Your task to perform on an android device: Do I have any events today? Image 0: 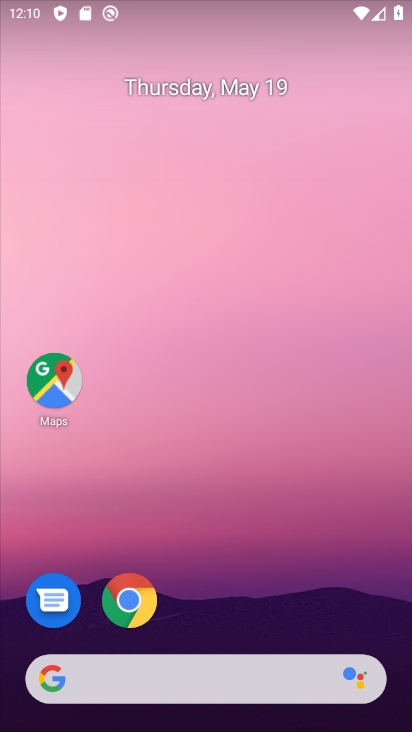
Step 0: drag from (277, 368) to (259, 29)
Your task to perform on an android device: Do I have any events today? Image 1: 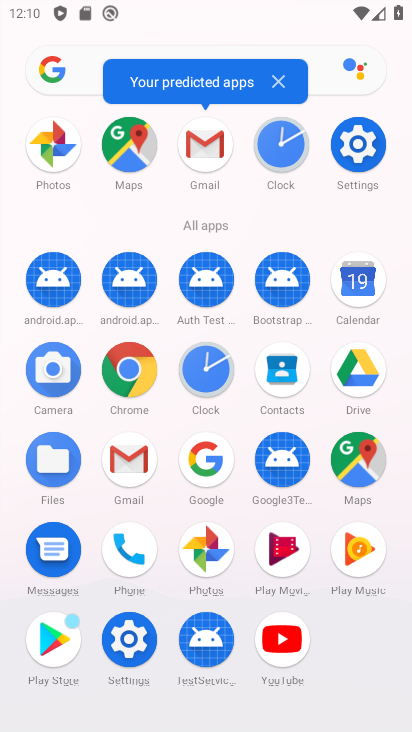
Step 1: drag from (274, 516) to (241, 0)
Your task to perform on an android device: Do I have any events today? Image 2: 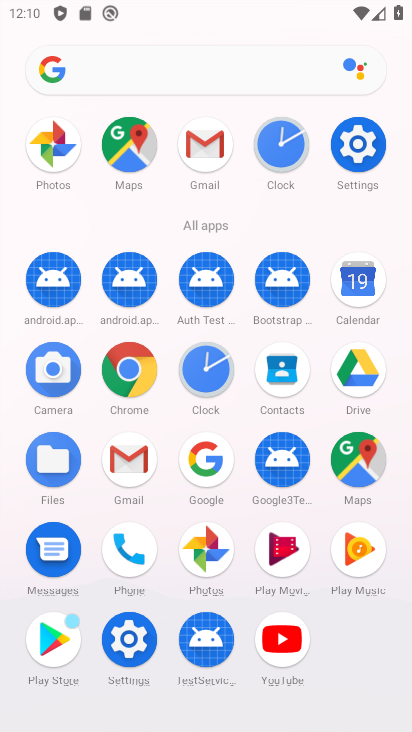
Step 2: click (354, 276)
Your task to perform on an android device: Do I have any events today? Image 3: 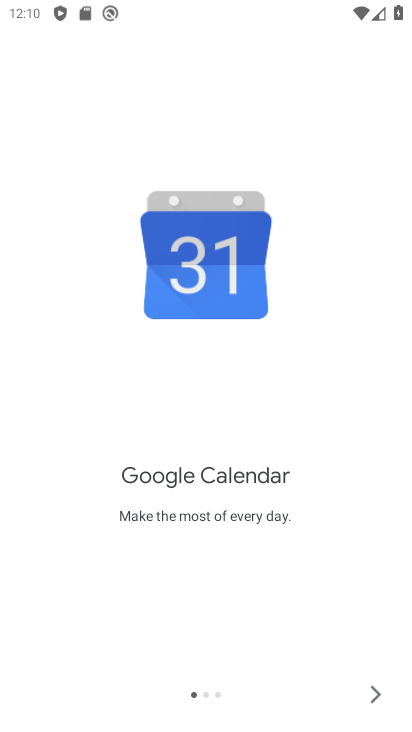
Step 3: click (379, 697)
Your task to perform on an android device: Do I have any events today? Image 4: 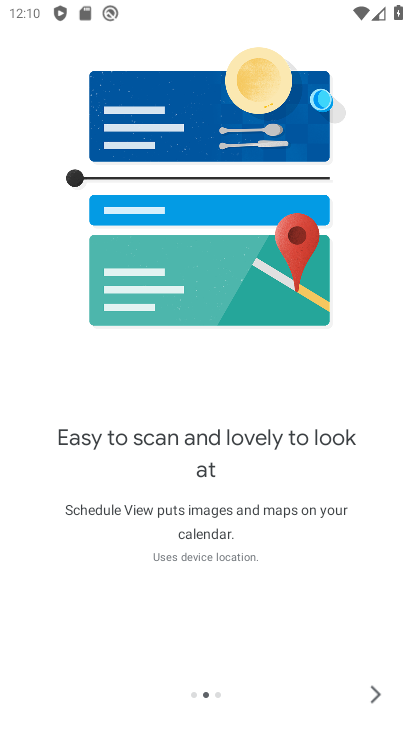
Step 4: click (379, 697)
Your task to perform on an android device: Do I have any events today? Image 5: 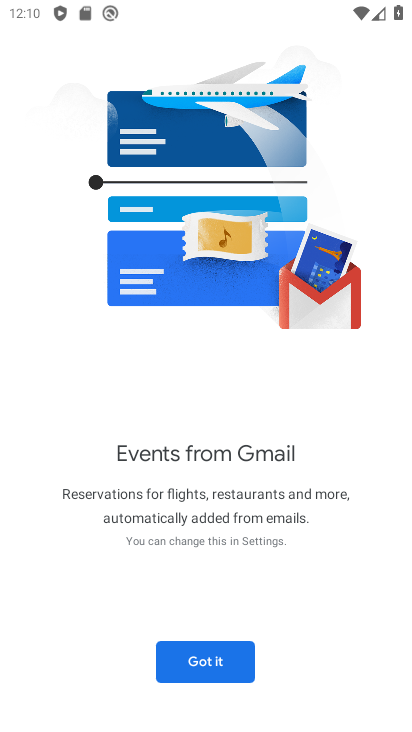
Step 5: click (188, 653)
Your task to perform on an android device: Do I have any events today? Image 6: 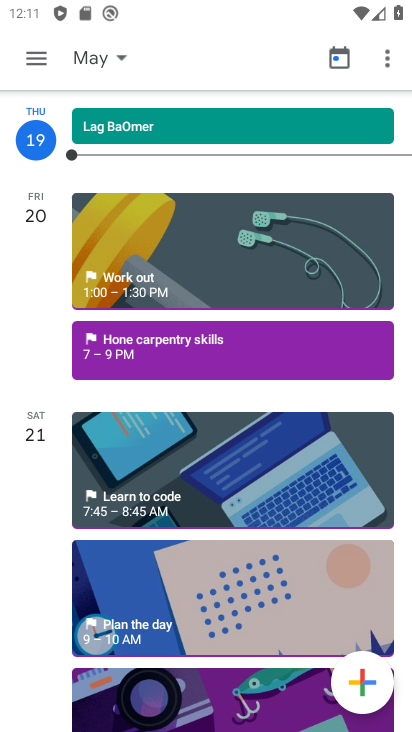
Step 6: task complete